Your task to perform on an android device: turn on javascript in the chrome app Image 0: 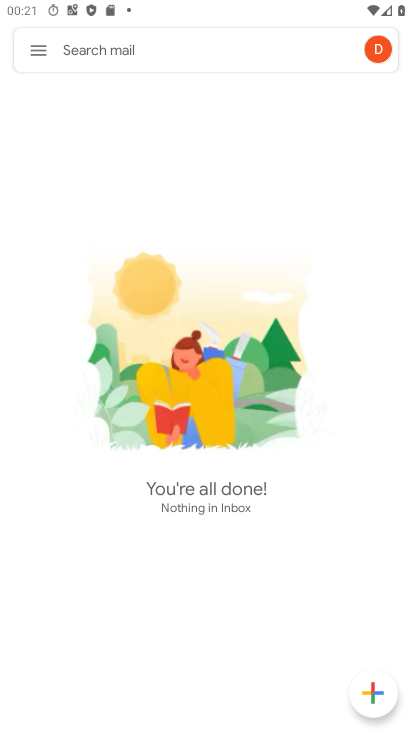
Step 0: press home button
Your task to perform on an android device: turn on javascript in the chrome app Image 1: 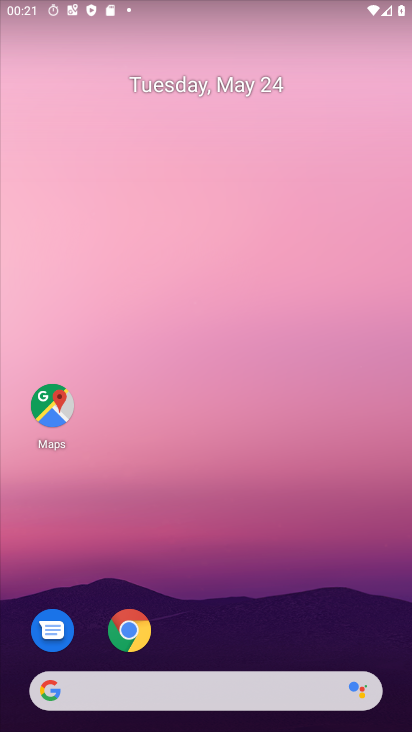
Step 1: click (128, 627)
Your task to perform on an android device: turn on javascript in the chrome app Image 2: 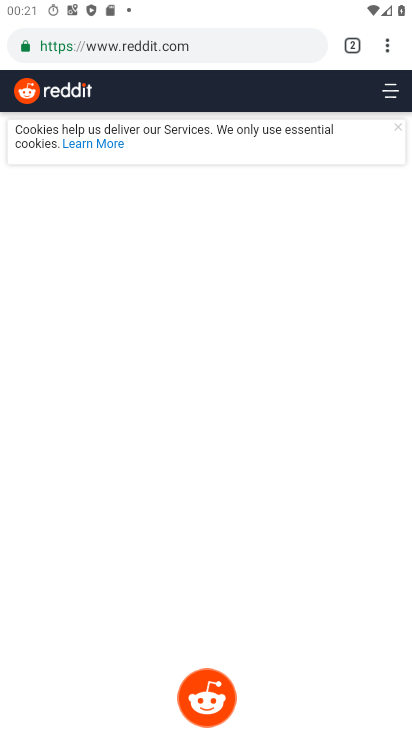
Step 2: click (389, 43)
Your task to perform on an android device: turn on javascript in the chrome app Image 3: 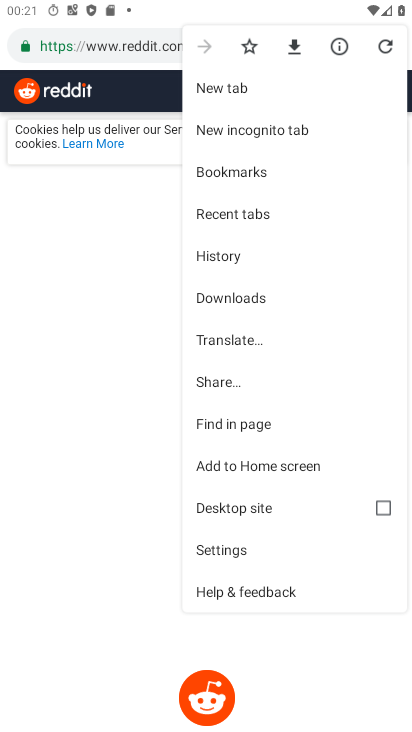
Step 3: click (221, 550)
Your task to perform on an android device: turn on javascript in the chrome app Image 4: 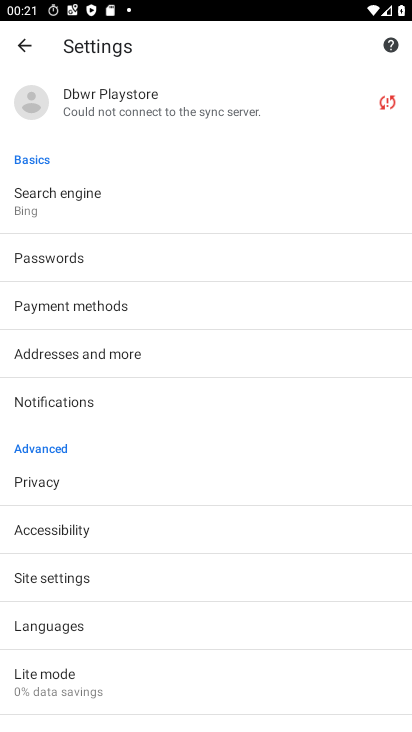
Step 4: click (70, 576)
Your task to perform on an android device: turn on javascript in the chrome app Image 5: 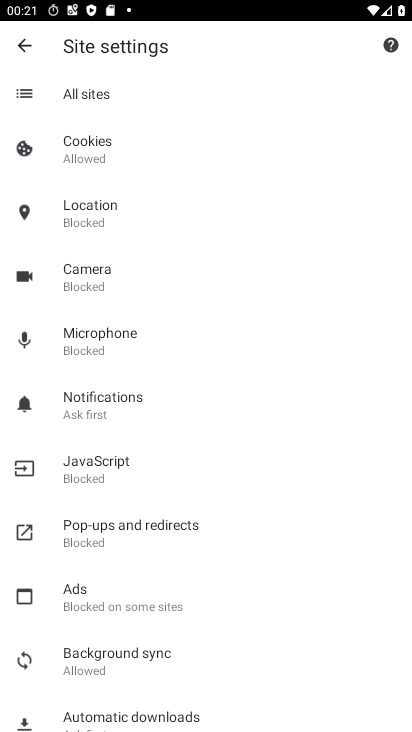
Step 5: click (77, 481)
Your task to perform on an android device: turn on javascript in the chrome app Image 6: 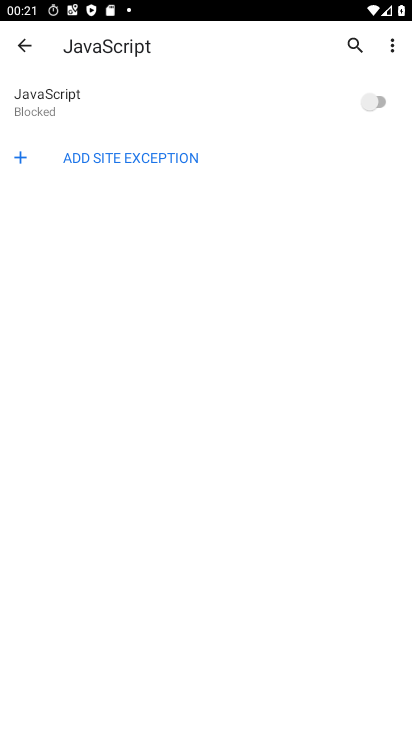
Step 6: click (384, 102)
Your task to perform on an android device: turn on javascript in the chrome app Image 7: 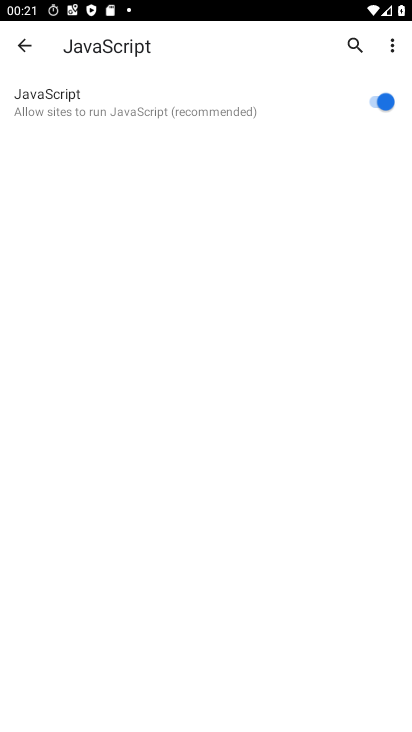
Step 7: task complete